Your task to perform on an android device: change keyboard looks Image 0: 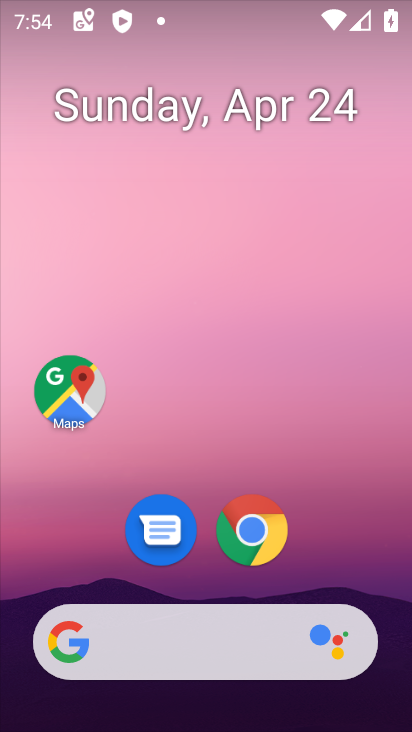
Step 0: drag from (201, 589) to (208, 168)
Your task to perform on an android device: change keyboard looks Image 1: 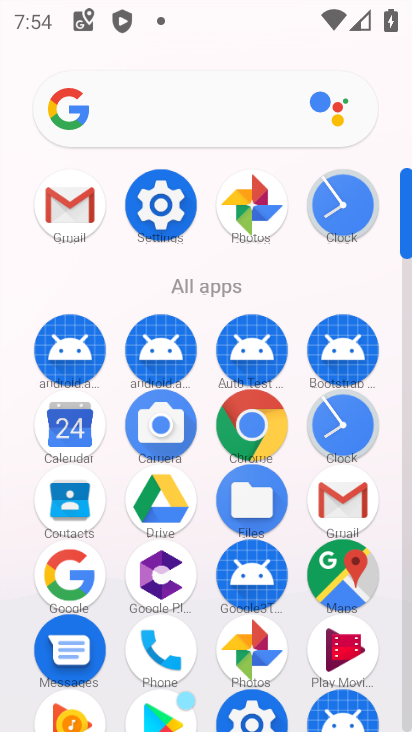
Step 1: click (161, 217)
Your task to perform on an android device: change keyboard looks Image 2: 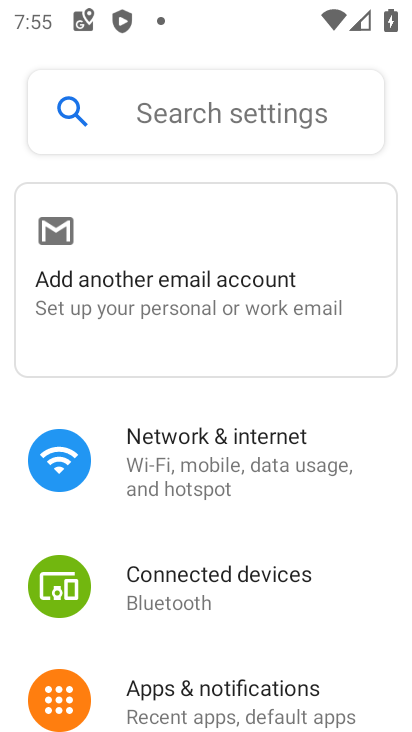
Step 2: drag from (205, 666) to (194, 149)
Your task to perform on an android device: change keyboard looks Image 3: 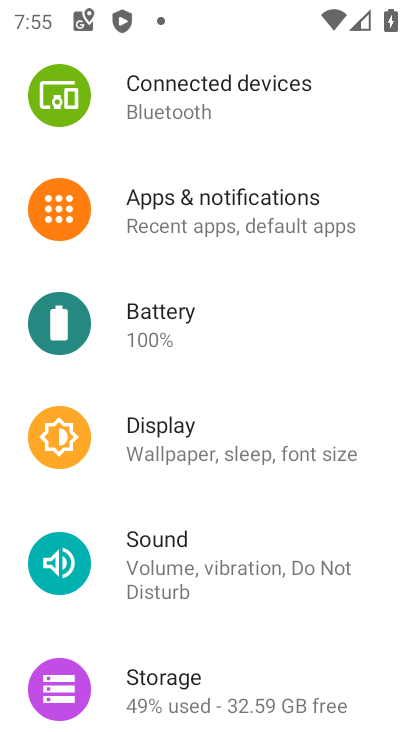
Step 3: drag from (215, 575) to (293, 127)
Your task to perform on an android device: change keyboard looks Image 4: 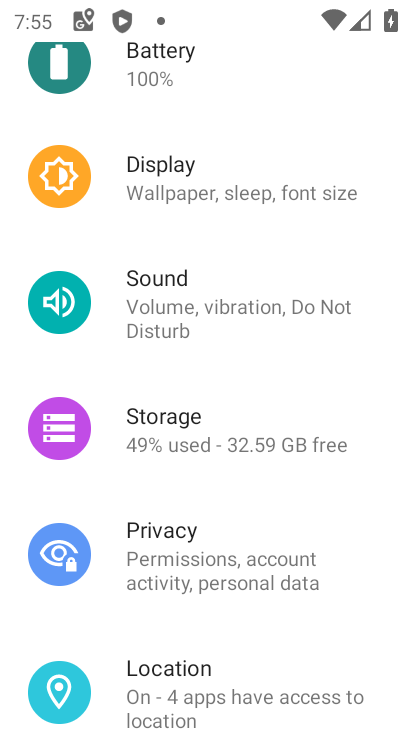
Step 4: drag from (211, 613) to (190, 175)
Your task to perform on an android device: change keyboard looks Image 5: 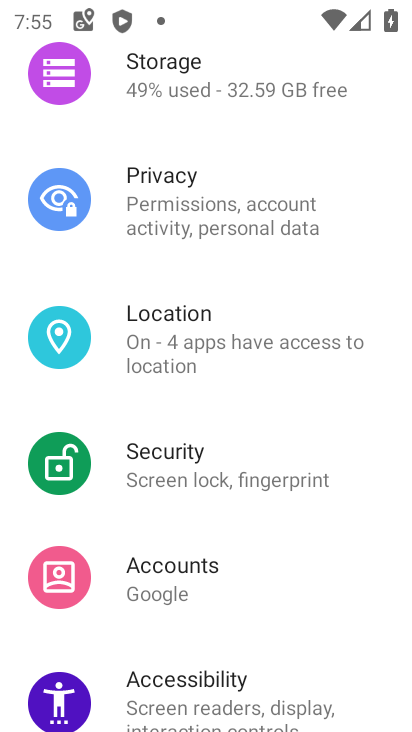
Step 5: drag from (151, 511) to (210, 35)
Your task to perform on an android device: change keyboard looks Image 6: 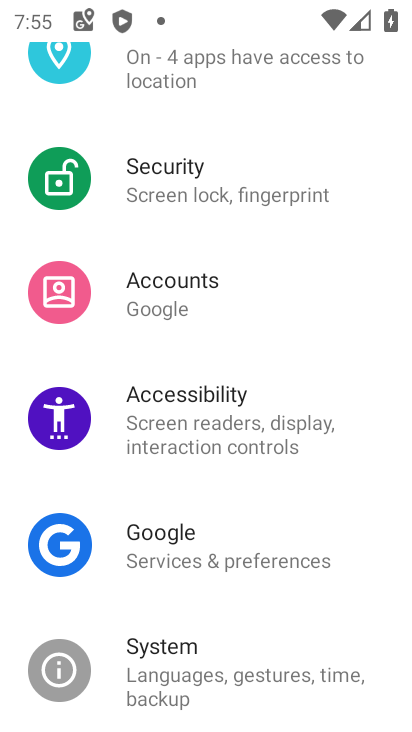
Step 6: drag from (112, 593) to (153, 156)
Your task to perform on an android device: change keyboard looks Image 7: 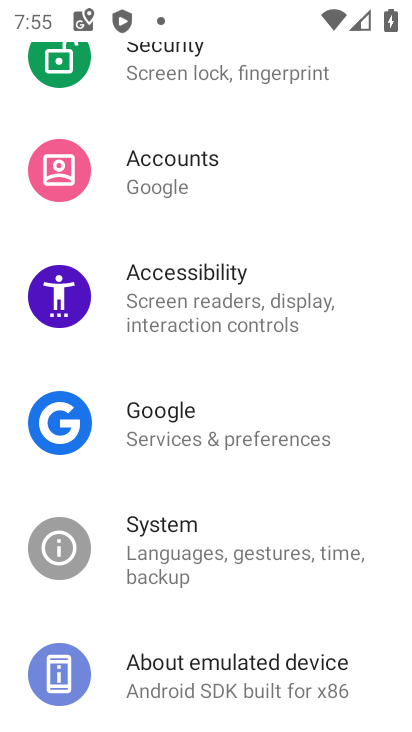
Step 7: click (187, 571)
Your task to perform on an android device: change keyboard looks Image 8: 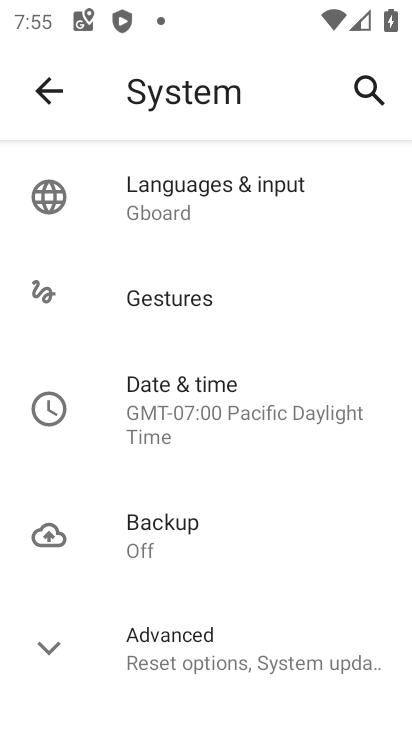
Step 8: click (241, 209)
Your task to perform on an android device: change keyboard looks Image 9: 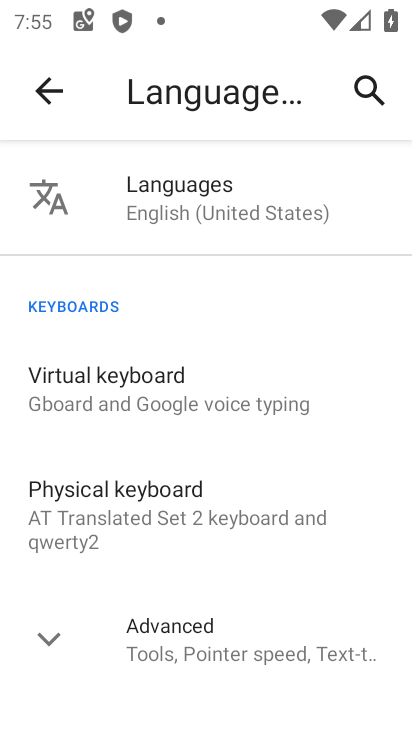
Step 9: click (216, 391)
Your task to perform on an android device: change keyboard looks Image 10: 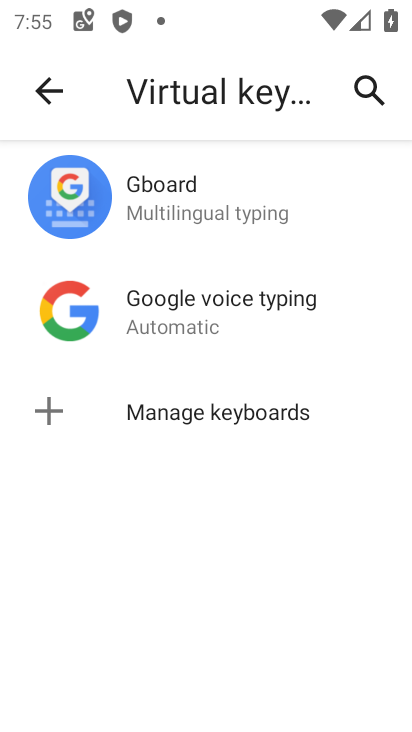
Step 10: click (213, 213)
Your task to perform on an android device: change keyboard looks Image 11: 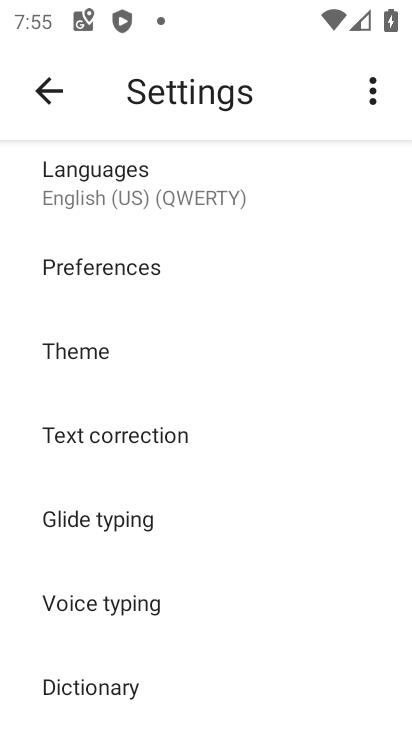
Step 11: click (119, 369)
Your task to perform on an android device: change keyboard looks Image 12: 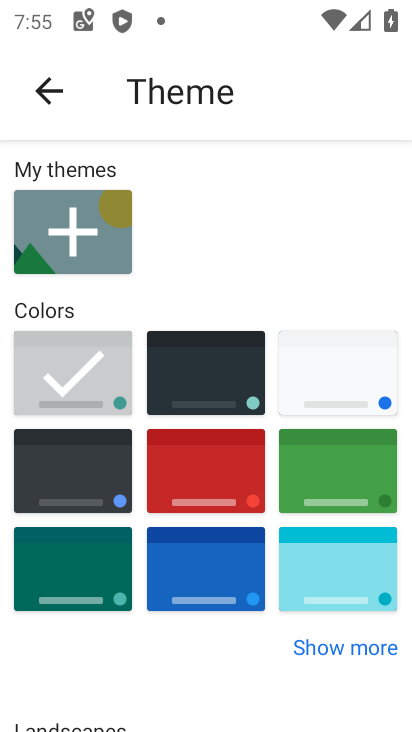
Step 12: click (244, 487)
Your task to perform on an android device: change keyboard looks Image 13: 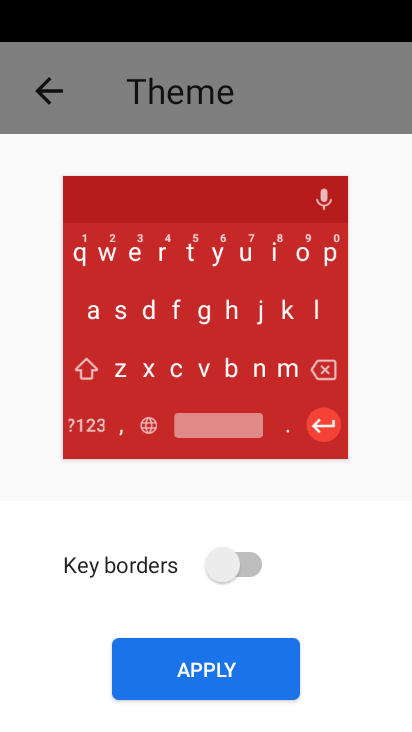
Step 13: click (248, 563)
Your task to perform on an android device: change keyboard looks Image 14: 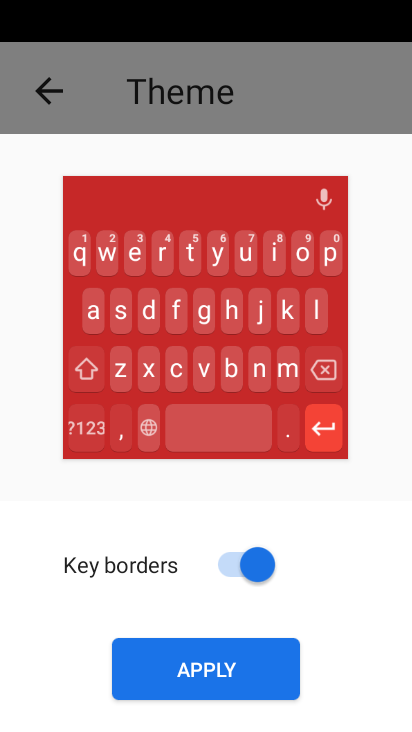
Step 14: click (223, 678)
Your task to perform on an android device: change keyboard looks Image 15: 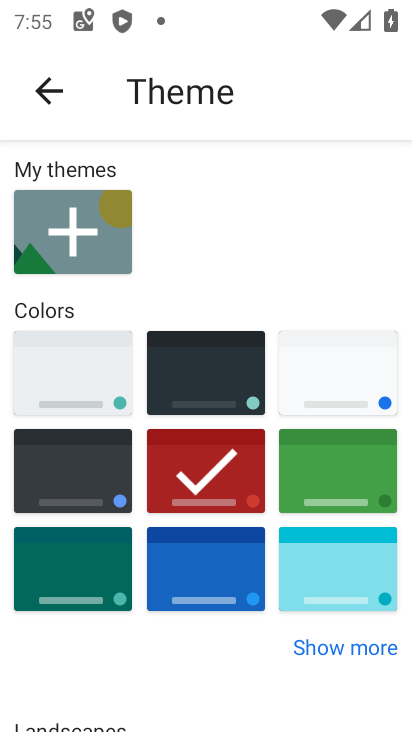
Step 15: task complete